Your task to perform on an android device: turn on translation in the chrome app Image 0: 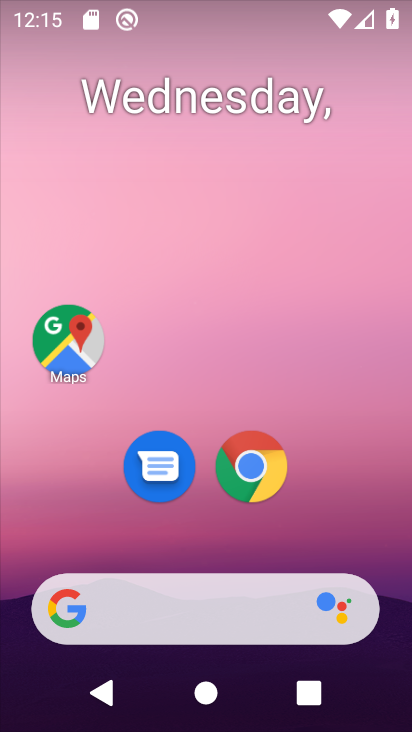
Step 0: click (262, 475)
Your task to perform on an android device: turn on translation in the chrome app Image 1: 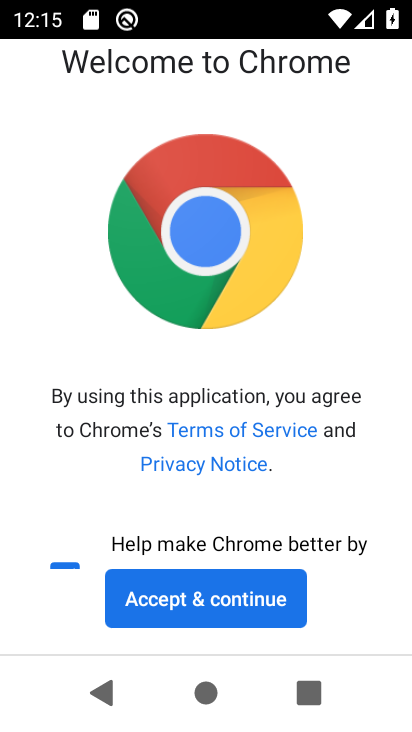
Step 1: click (251, 592)
Your task to perform on an android device: turn on translation in the chrome app Image 2: 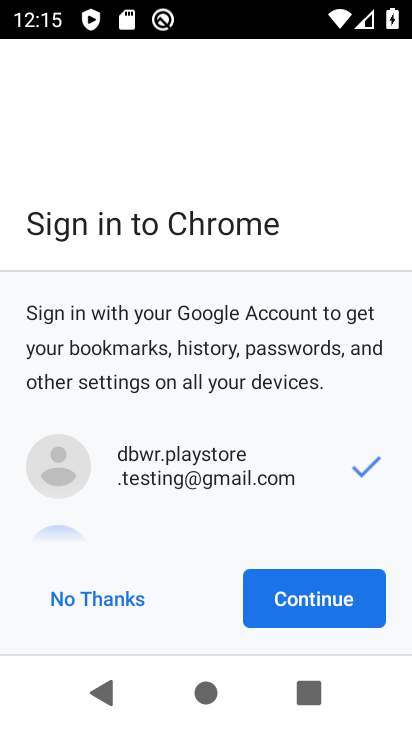
Step 2: click (271, 595)
Your task to perform on an android device: turn on translation in the chrome app Image 3: 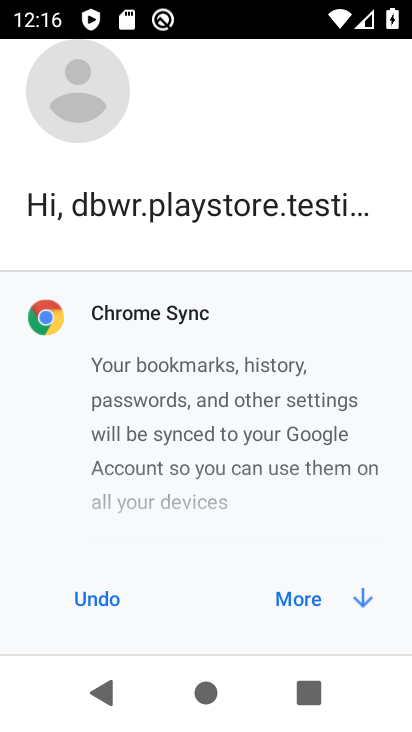
Step 3: click (271, 598)
Your task to perform on an android device: turn on translation in the chrome app Image 4: 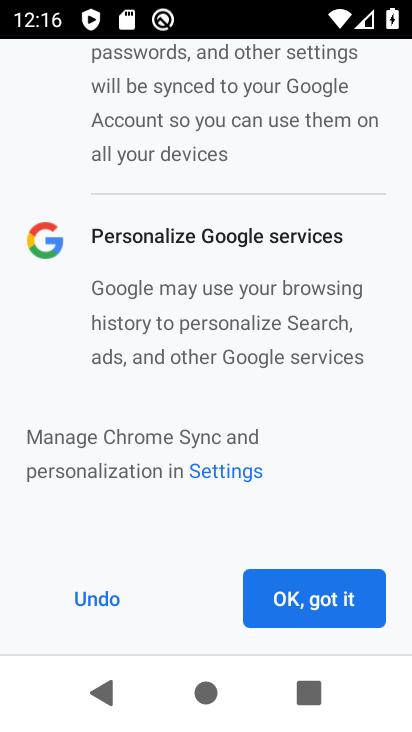
Step 4: click (284, 600)
Your task to perform on an android device: turn on translation in the chrome app Image 5: 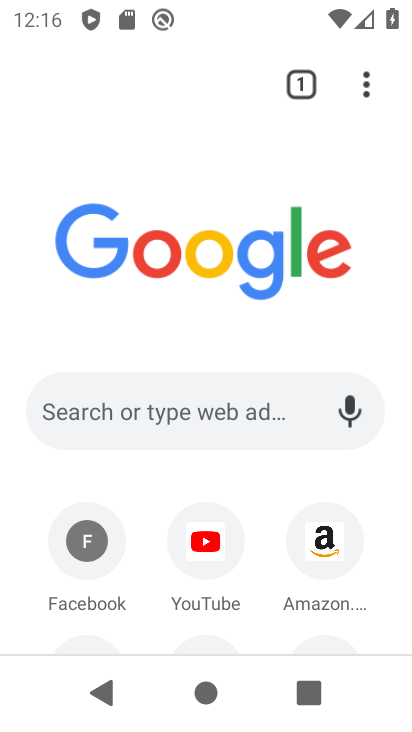
Step 5: click (370, 101)
Your task to perform on an android device: turn on translation in the chrome app Image 6: 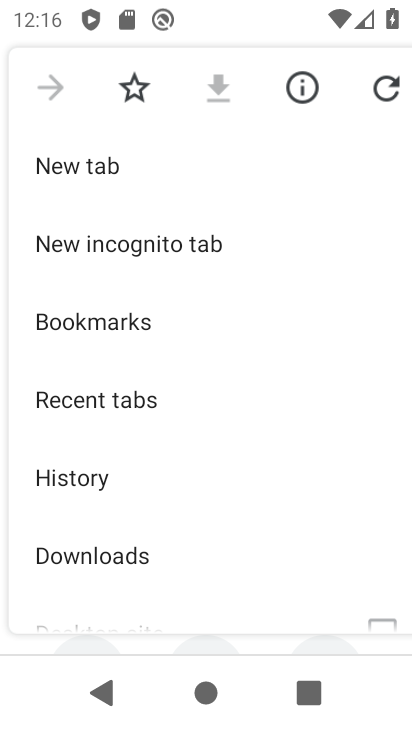
Step 6: drag from (189, 585) to (174, 141)
Your task to perform on an android device: turn on translation in the chrome app Image 7: 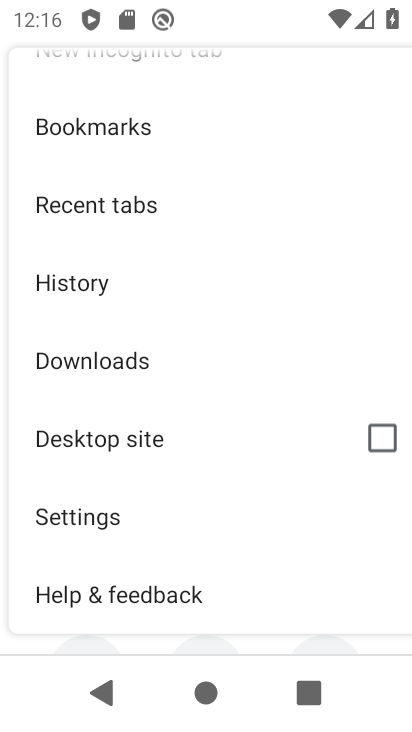
Step 7: drag from (169, 543) to (153, 217)
Your task to perform on an android device: turn on translation in the chrome app Image 8: 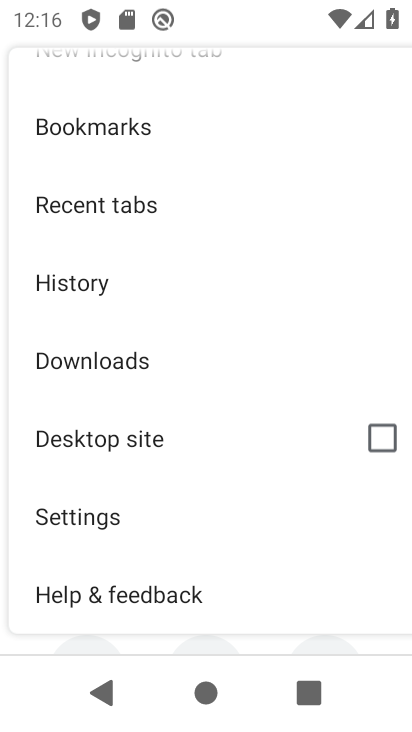
Step 8: click (154, 525)
Your task to perform on an android device: turn on translation in the chrome app Image 9: 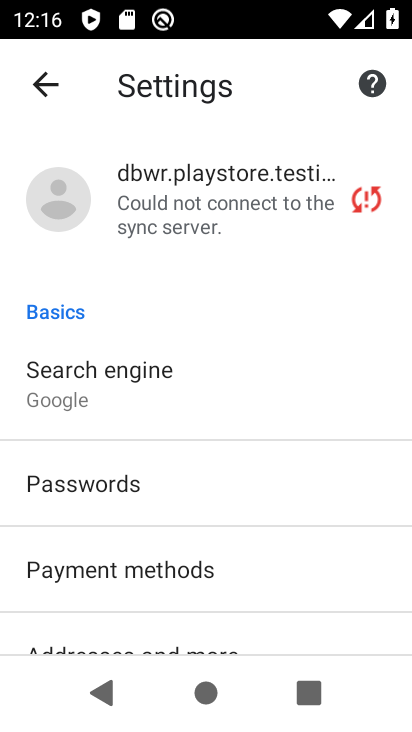
Step 9: drag from (216, 617) to (185, 236)
Your task to perform on an android device: turn on translation in the chrome app Image 10: 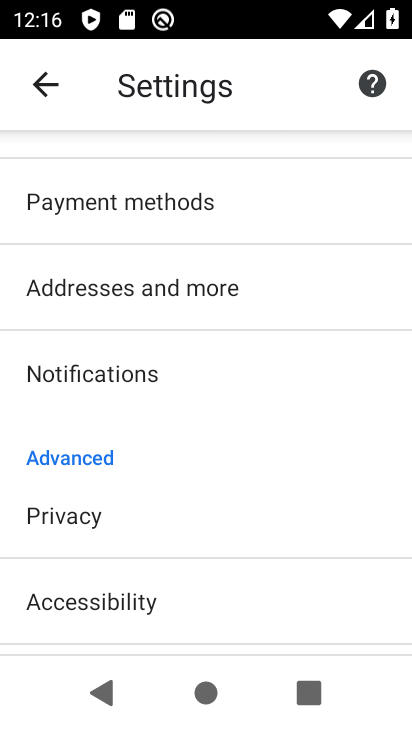
Step 10: drag from (277, 568) to (222, 211)
Your task to perform on an android device: turn on translation in the chrome app Image 11: 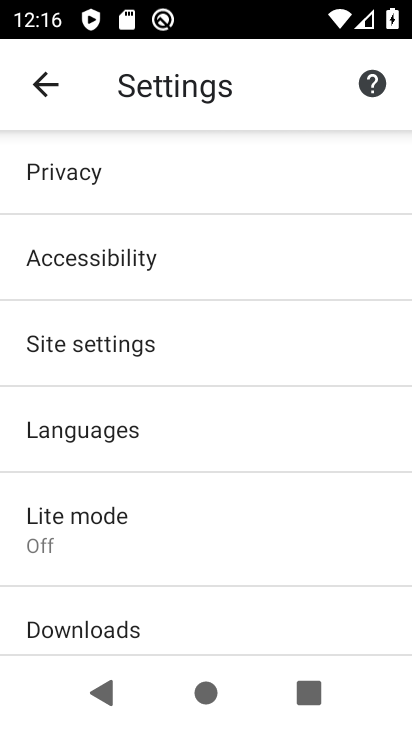
Step 11: click (200, 451)
Your task to perform on an android device: turn on translation in the chrome app Image 12: 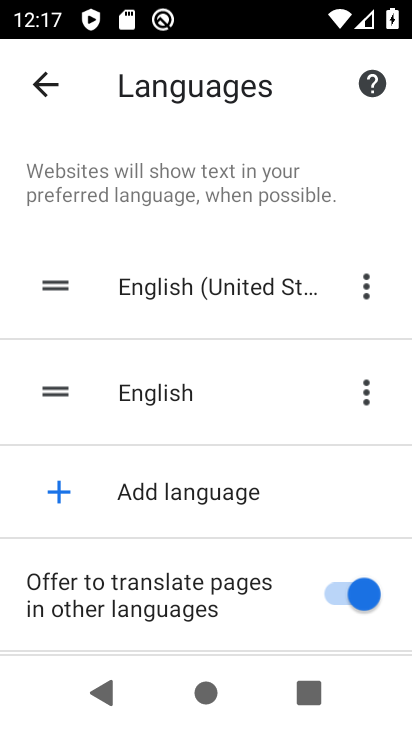
Step 12: task complete